Your task to perform on an android device: check the backup settings in the google photos Image 0: 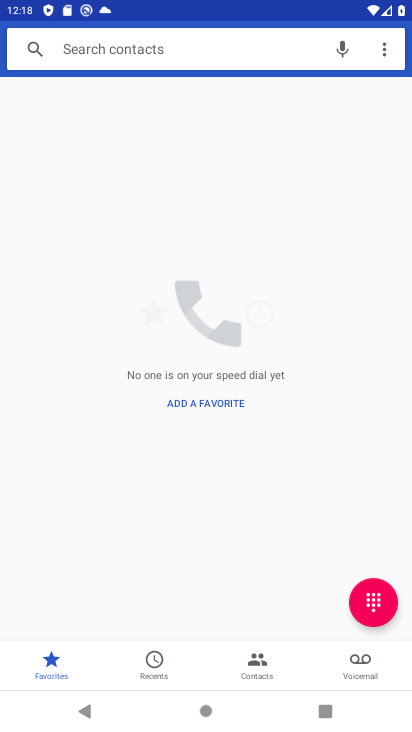
Step 0: press home button
Your task to perform on an android device: check the backup settings in the google photos Image 1: 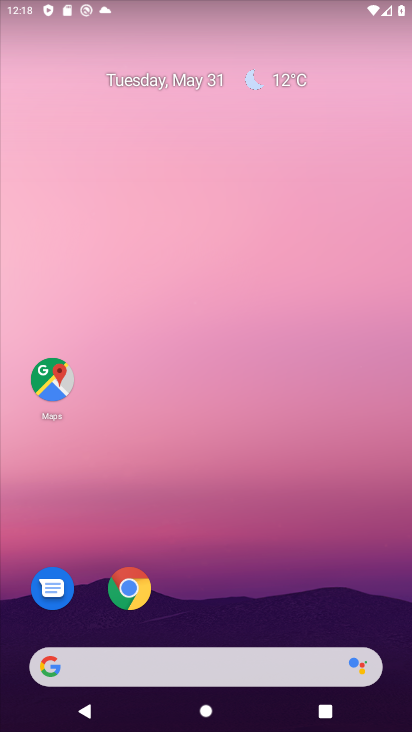
Step 1: drag from (395, 675) to (346, 144)
Your task to perform on an android device: check the backup settings in the google photos Image 2: 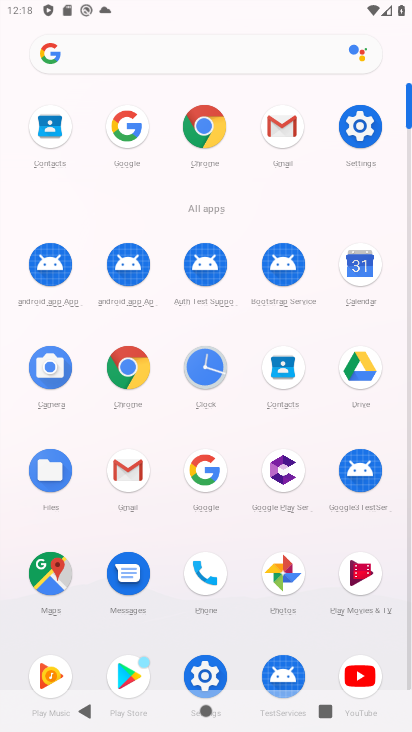
Step 2: click (283, 578)
Your task to perform on an android device: check the backup settings in the google photos Image 3: 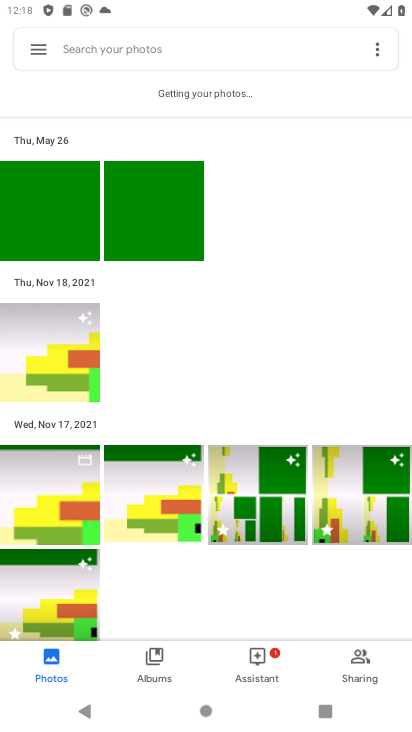
Step 3: press home button
Your task to perform on an android device: check the backup settings in the google photos Image 4: 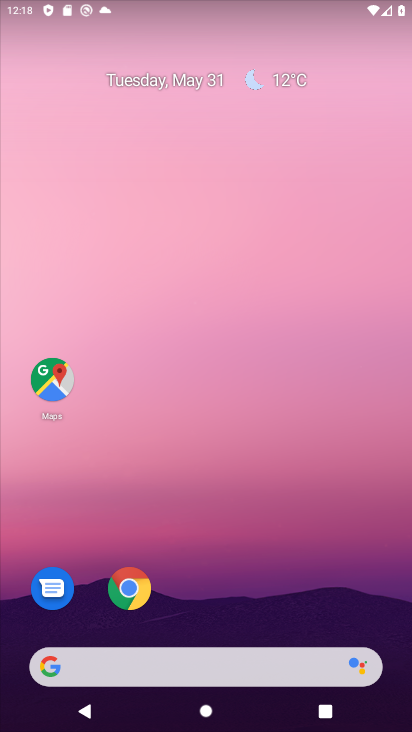
Step 4: drag from (382, 686) to (364, 207)
Your task to perform on an android device: check the backup settings in the google photos Image 5: 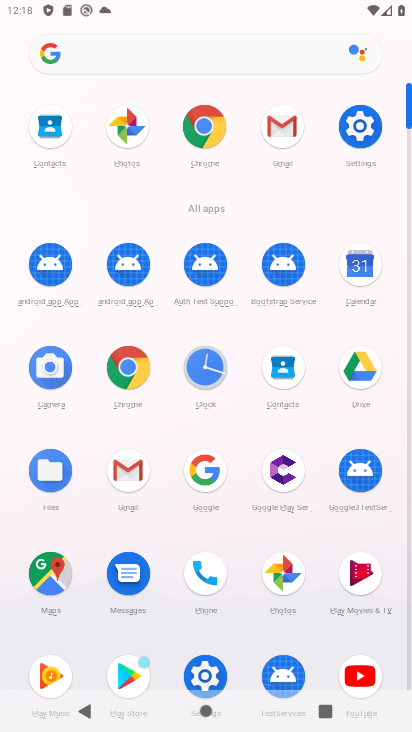
Step 5: click (292, 568)
Your task to perform on an android device: check the backup settings in the google photos Image 6: 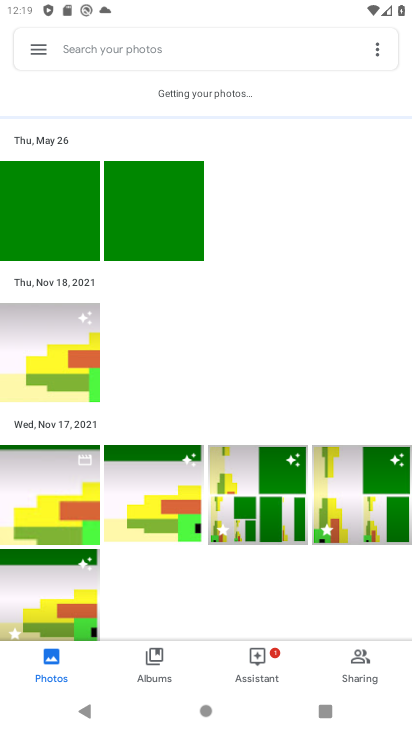
Step 6: click (42, 51)
Your task to perform on an android device: check the backup settings in the google photos Image 7: 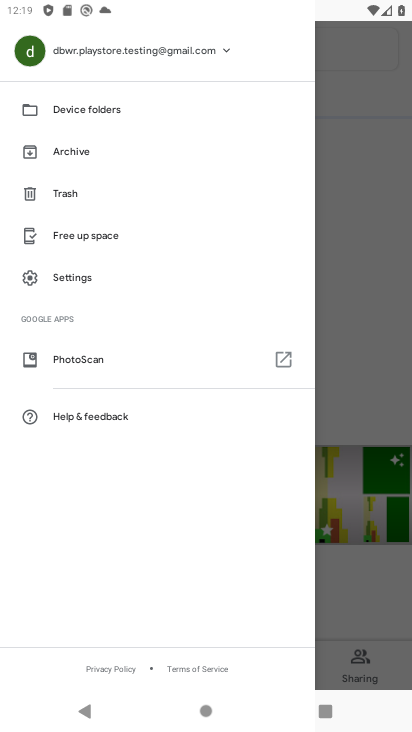
Step 7: click (65, 278)
Your task to perform on an android device: check the backup settings in the google photos Image 8: 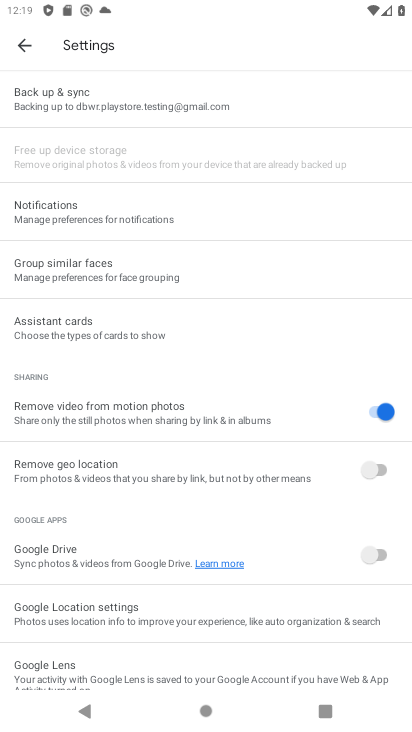
Step 8: click (82, 103)
Your task to perform on an android device: check the backup settings in the google photos Image 9: 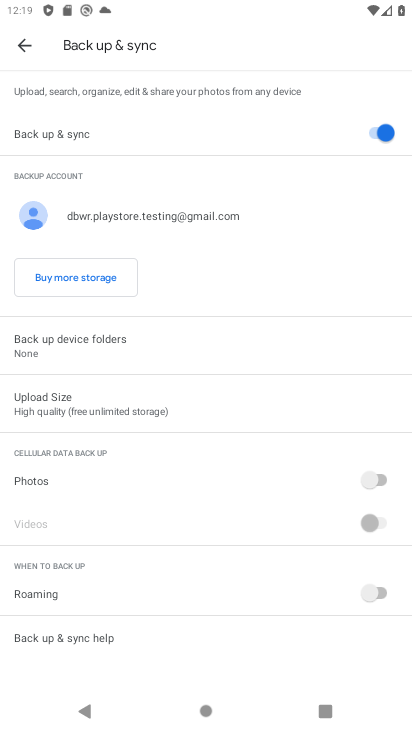
Step 9: task complete